Your task to perform on an android device: Go to location settings Image 0: 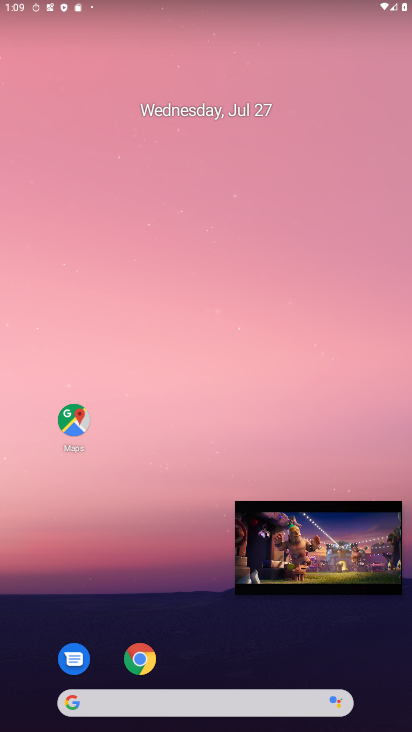
Step 0: press home button
Your task to perform on an android device: Go to location settings Image 1: 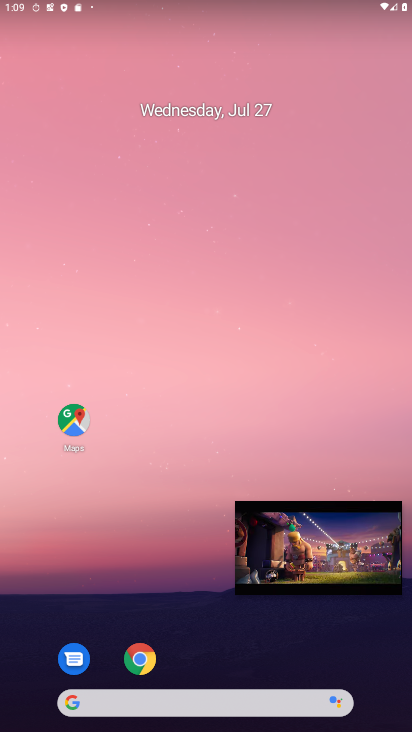
Step 1: drag from (165, 485) to (192, 123)
Your task to perform on an android device: Go to location settings Image 2: 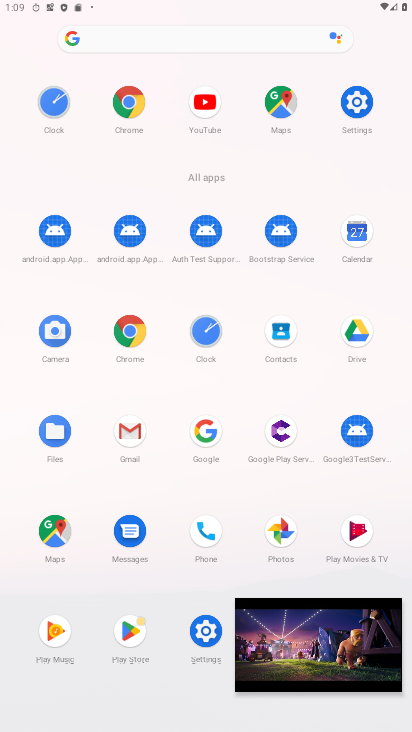
Step 2: click (194, 635)
Your task to perform on an android device: Go to location settings Image 3: 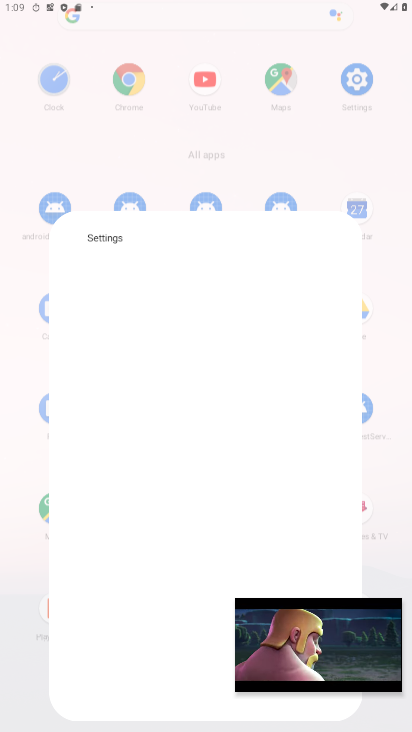
Step 3: click (381, 662)
Your task to perform on an android device: Go to location settings Image 4: 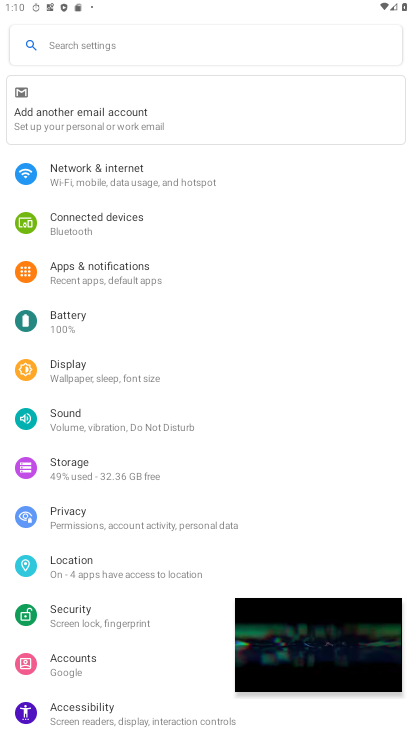
Step 4: click (330, 666)
Your task to perform on an android device: Go to location settings Image 5: 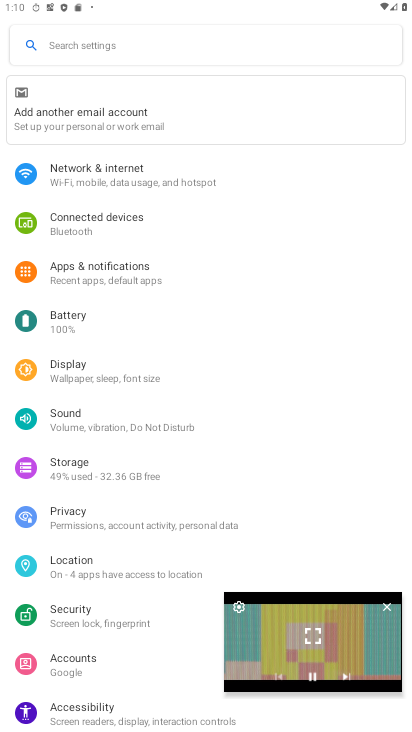
Step 5: click (387, 611)
Your task to perform on an android device: Go to location settings Image 6: 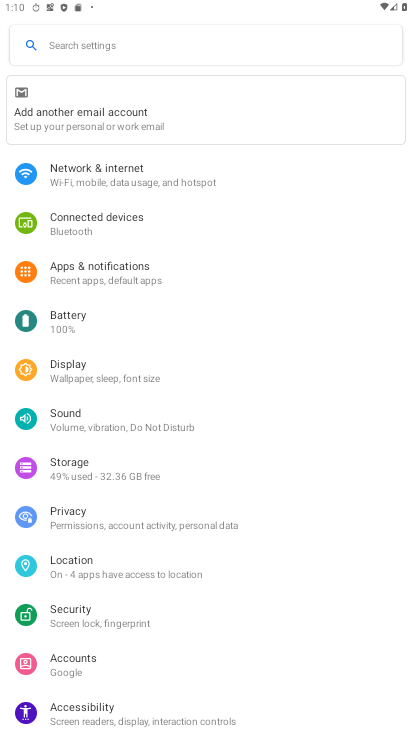
Step 6: click (99, 579)
Your task to perform on an android device: Go to location settings Image 7: 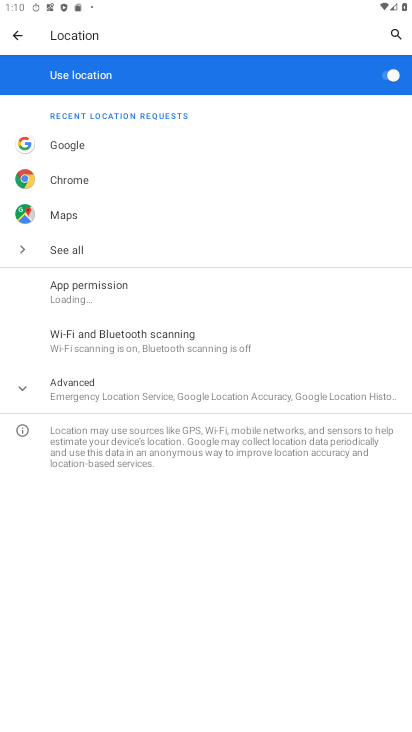
Step 7: task complete